Your task to perform on an android device: Open the calendar and show me this week's events Image 0: 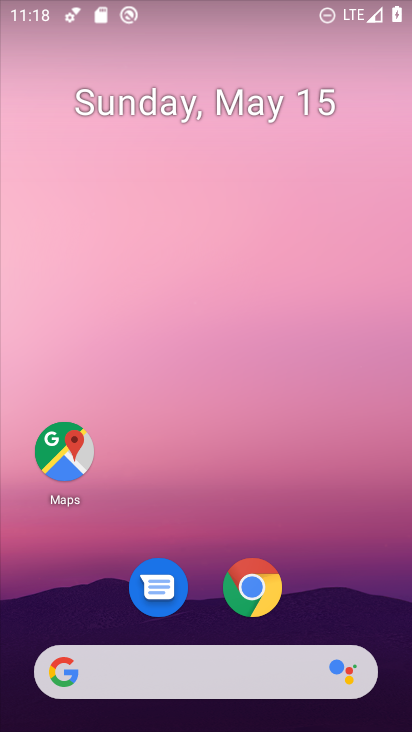
Step 0: drag from (214, 600) to (214, 182)
Your task to perform on an android device: Open the calendar and show me this week's events Image 1: 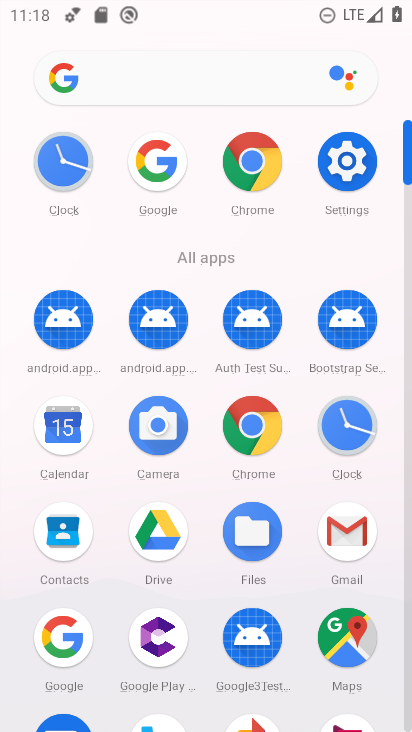
Step 1: click (69, 436)
Your task to perform on an android device: Open the calendar and show me this week's events Image 2: 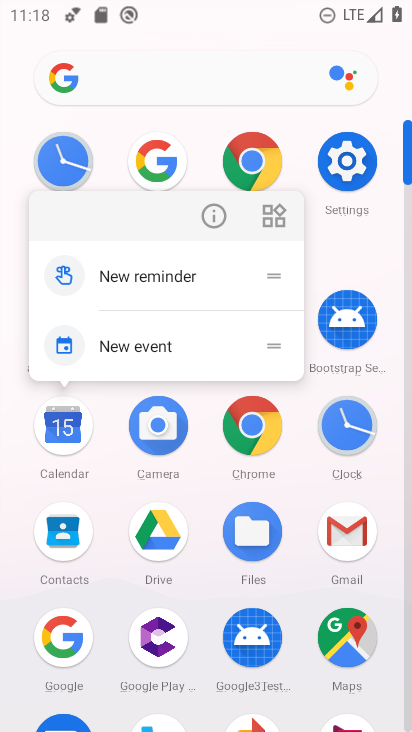
Step 2: click (57, 419)
Your task to perform on an android device: Open the calendar and show me this week's events Image 3: 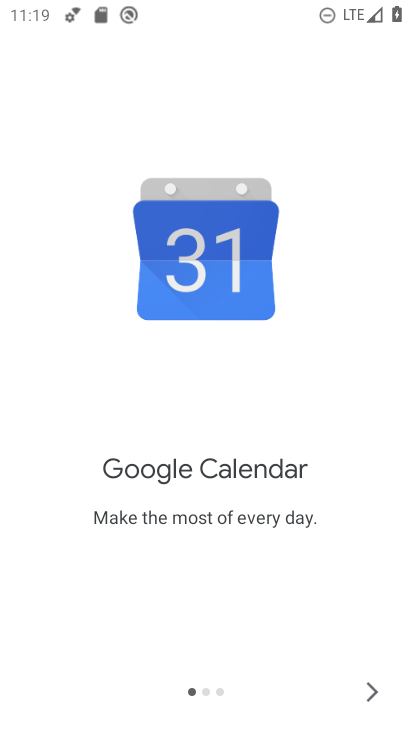
Step 3: click (371, 696)
Your task to perform on an android device: Open the calendar and show me this week's events Image 4: 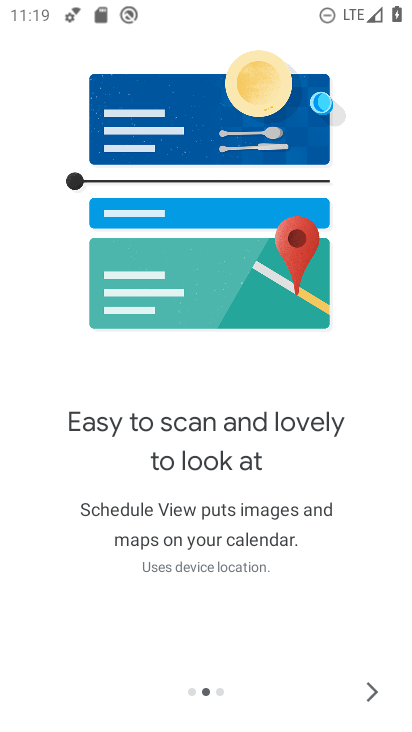
Step 4: click (370, 695)
Your task to perform on an android device: Open the calendar and show me this week's events Image 5: 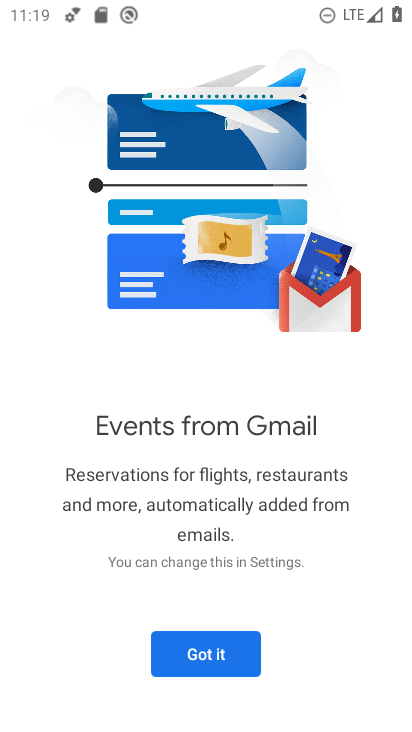
Step 5: click (212, 657)
Your task to perform on an android device: Open the calendar and show me this week's events Image 6: 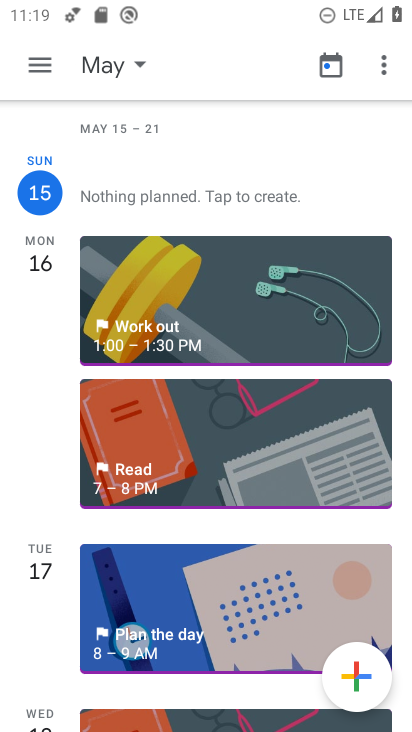
Step 6: click (136, 60)
Your task to perform on an android device: Open the calendar and show me this week's events Image 7: 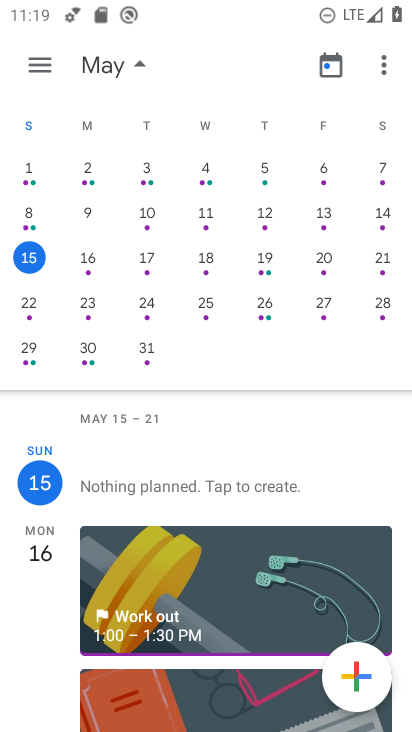
Step 7: drag from (126, 246) to (367, 227)
Your task to perform on an android device: Open the calendar and show me this week's events Image 8: 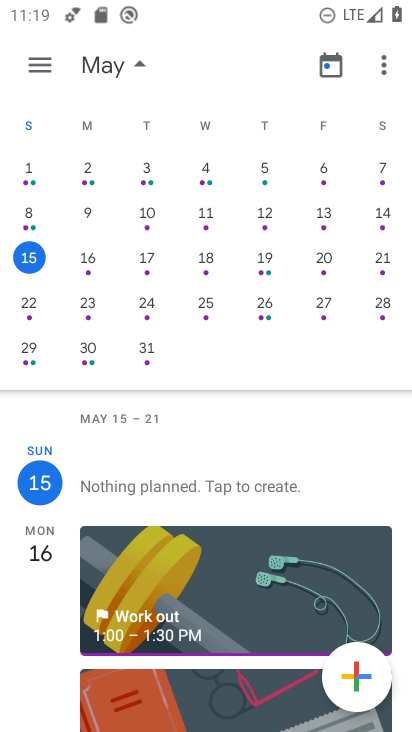
Step 8: drag from (107, 263) to (404, 292)
Your task to perform on an android device: Open the calendar and show me this week's events Image 9: 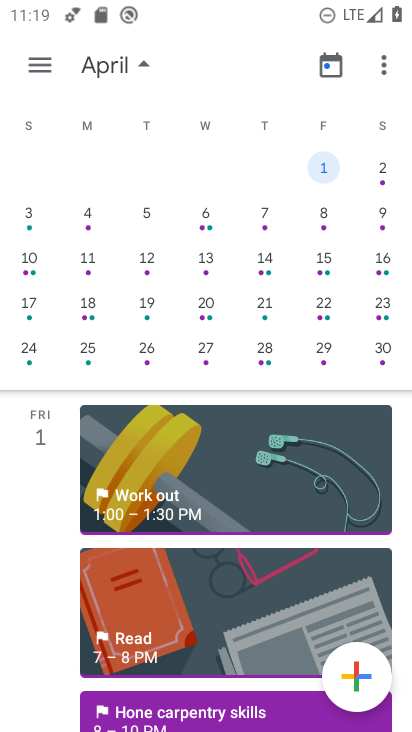
Step 9: drag from (318, 239) to (61, 281)
Your task to perform on an android device: Open the calendar and show me this week's events Image 10: 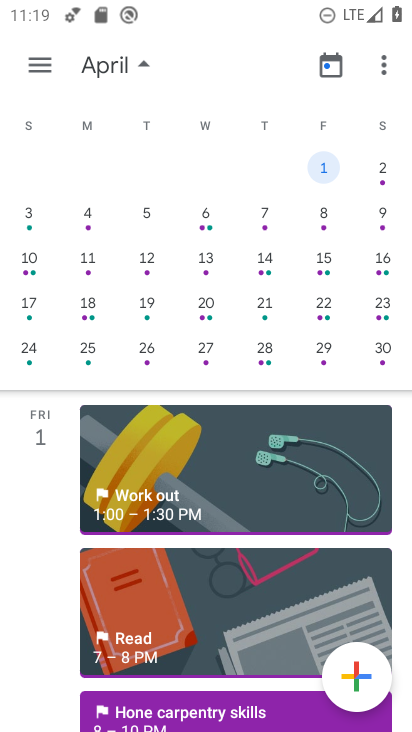
Step 10: drag from (361, 276) to (11, 238)
Your task to perform on an android device: Open the calendar and show me this week's events Image 11: 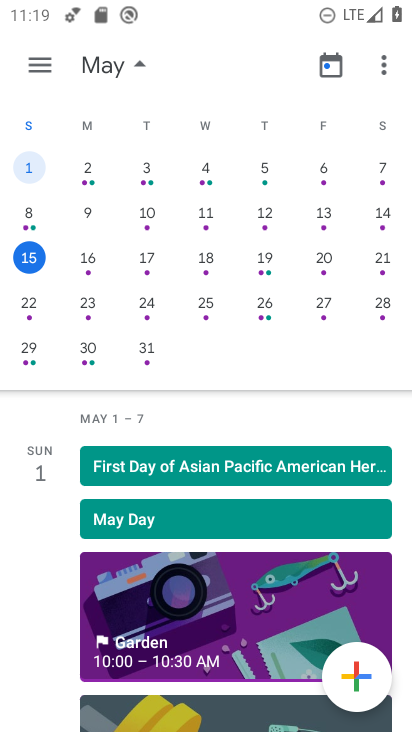
Step 11: click (91, 255)
Your task to perform on an android device: Open the calendar and show me this week's events Image 12: 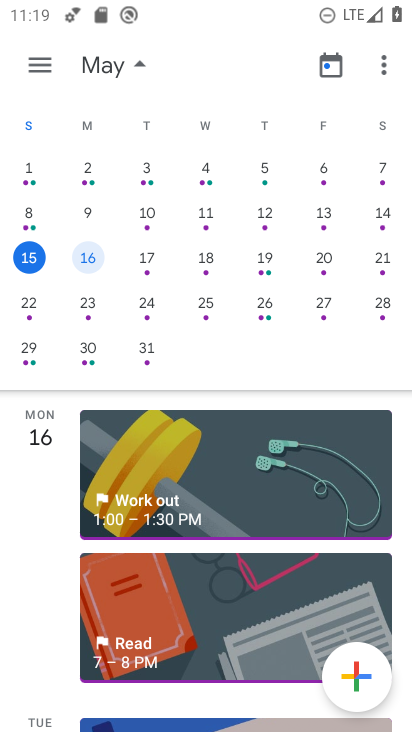
Step 12: click (147, 262)
Your task to perform on an android device: Open the calendar and show me this week's events Image 13: 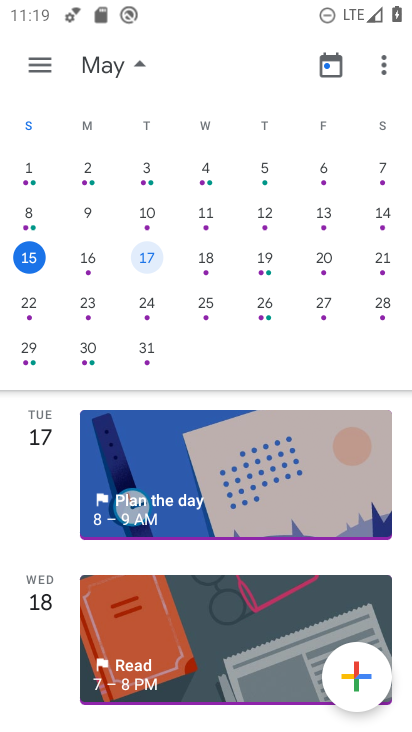
Step 13: click (194, 255)
Your task to perform on an android device: Open the calendar and show me this week's events Image 14: 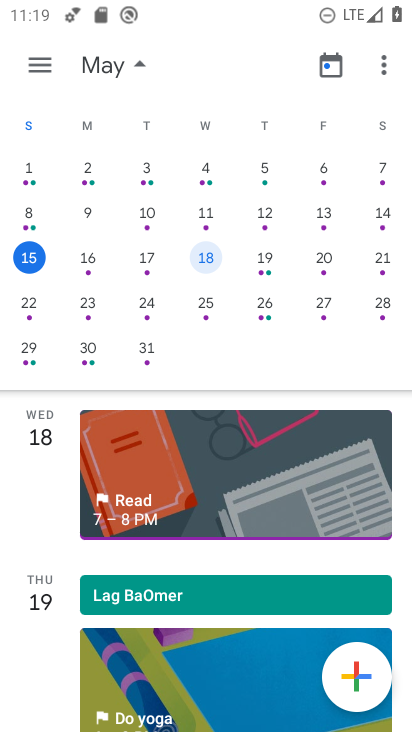
Step 14: click (261, 260)
Your task to perform on an android device: Open the calendar and show me this week's events Image 15: 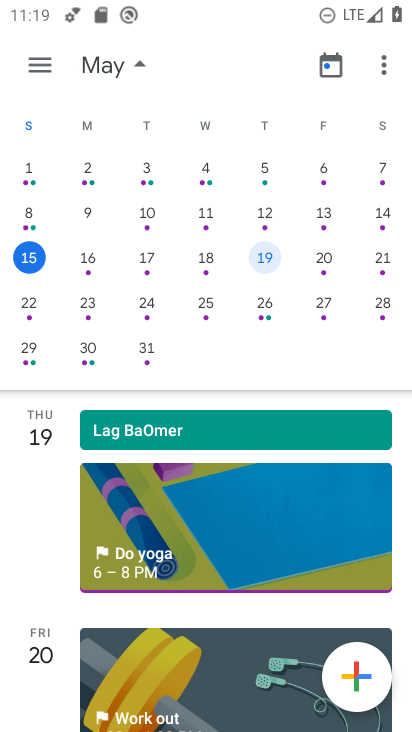
Step 15: task complete